Your task to perform on an android device: snooze an email in the gmail app Image 0: 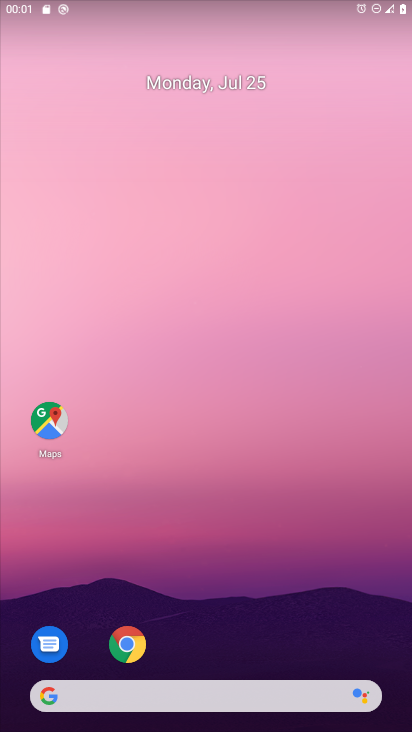
Step 0: drag from (381, 652) to (331, 68)
Your task to perform on an android device: snooze an email in the gmail app Image 1: 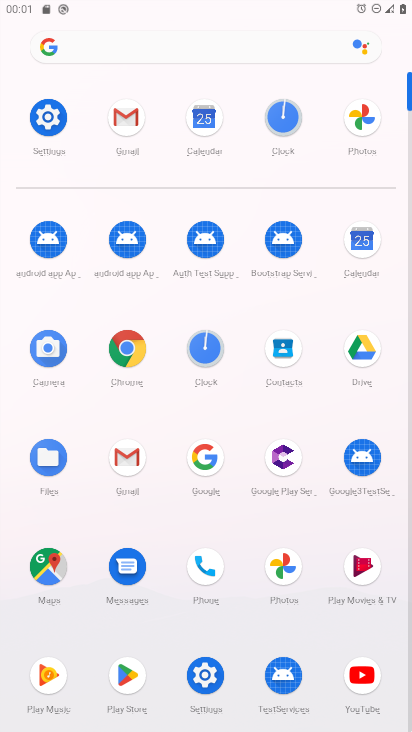
Step 1: click (127, 457)
Your task to perform on an android device: snooze an email in the gmail app Image 2: 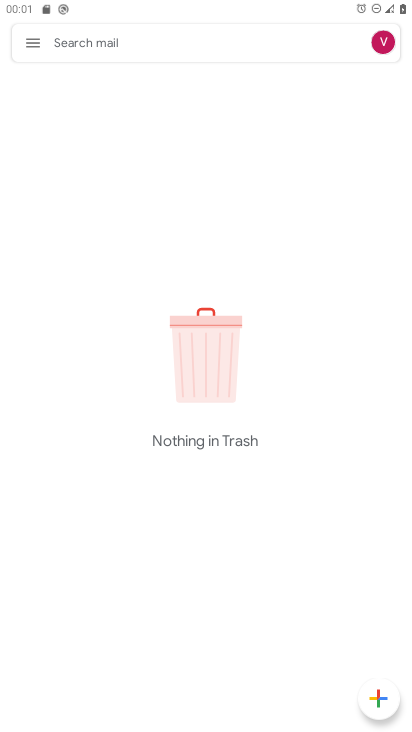
Step 2: click (30, 41)
Your task to perform on an android device: snooze an email in the gmail app Image 3: 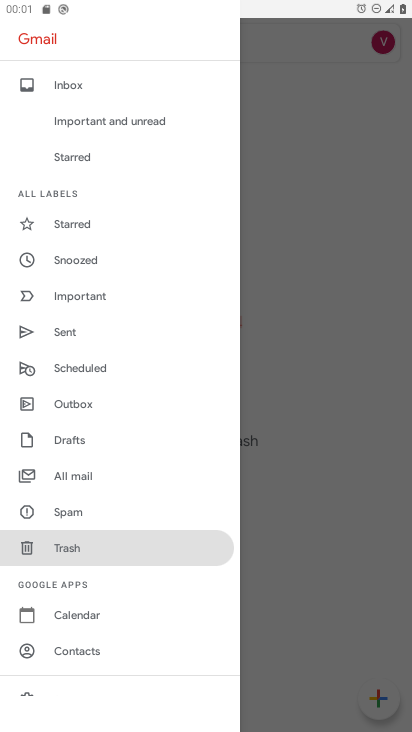
Step 3: click (75, 472)
Your task to perform on an android device: snooze an email in the gmail app Image 4: 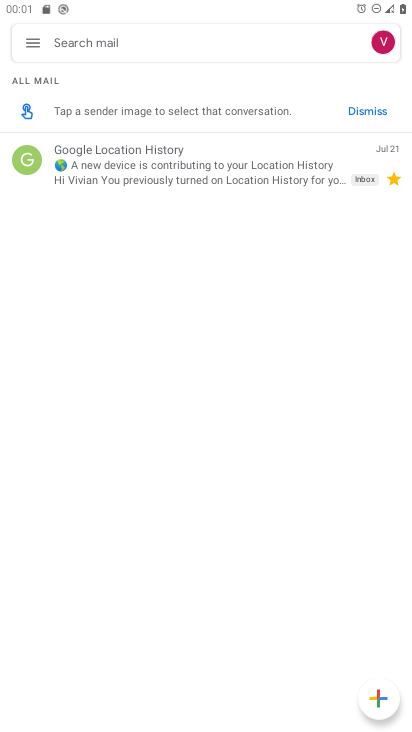
Step 4: click (216, 168)
Your task to perform on an android device: snooze an email in the gmail app Image 5: 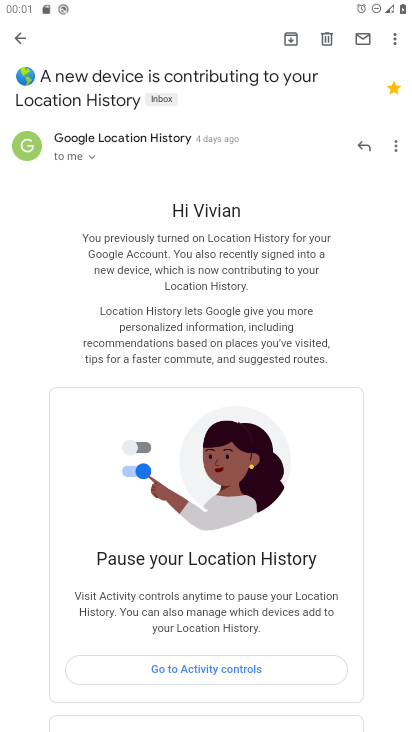
Step 5: click (393, 42)
Your task to perform on an android device: snooze an email in the gmail app Image 6: 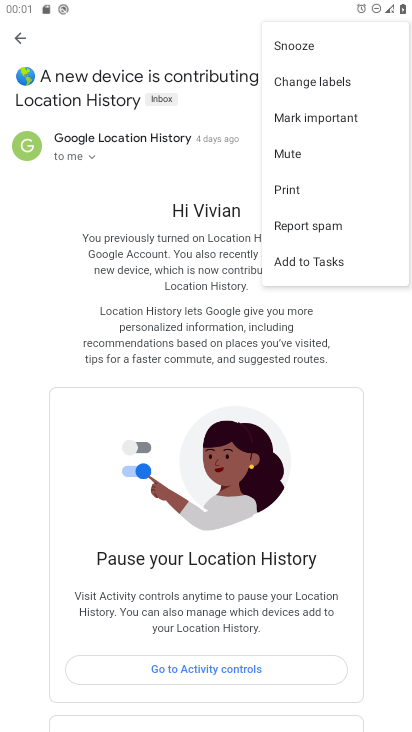
Step 6: click (292, 43)
Your task to perform on an android device: snooze an email in the gmail app Image 7: 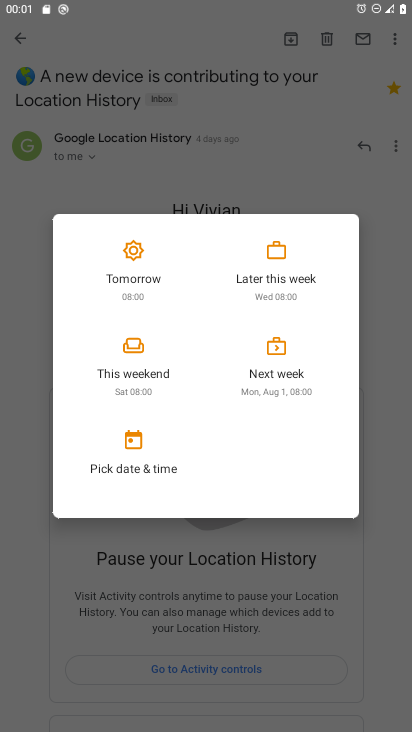
Step 7: click (132, 267)
Your task to perform on an android device: snooze an email in the gmail app Image 8: 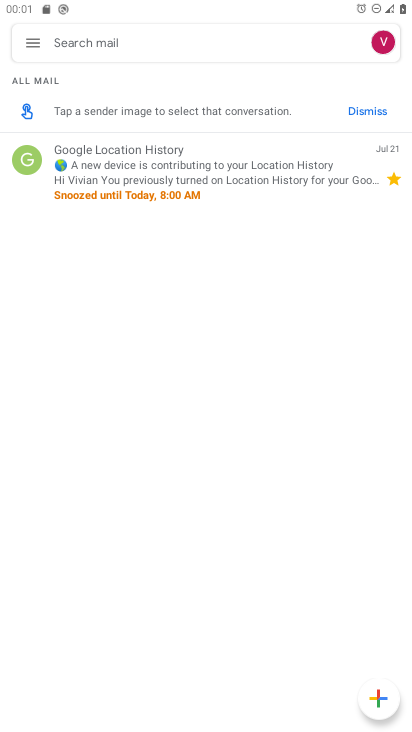
Step 8: task complete